Your task to perform on an android device: turn pop-ups off in chrome Image 0: 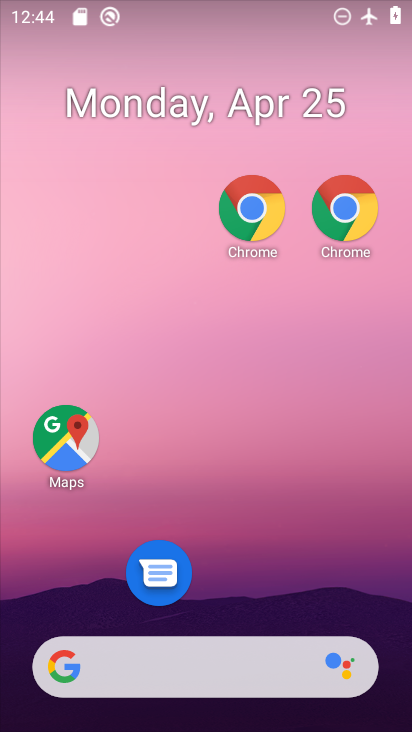
Step 0: drag from (251, 720) to (227, 279)
Your task to perform on an android device: turn pop-ups off in chrome Image 1: 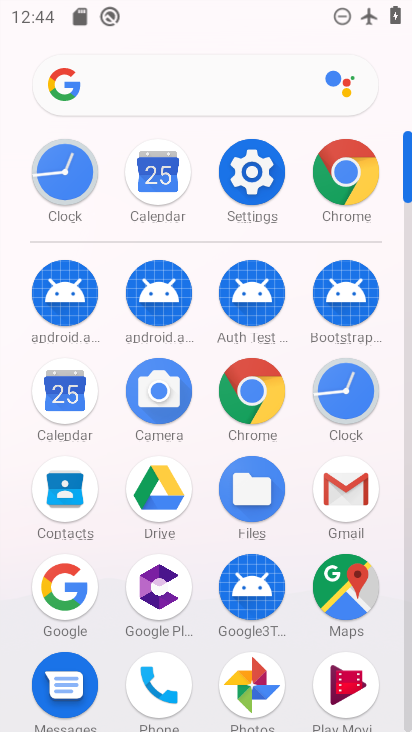
Step 1: click (249, 380)
Your task to perform on an android device: turn pop-ups off in chrome Image 2: 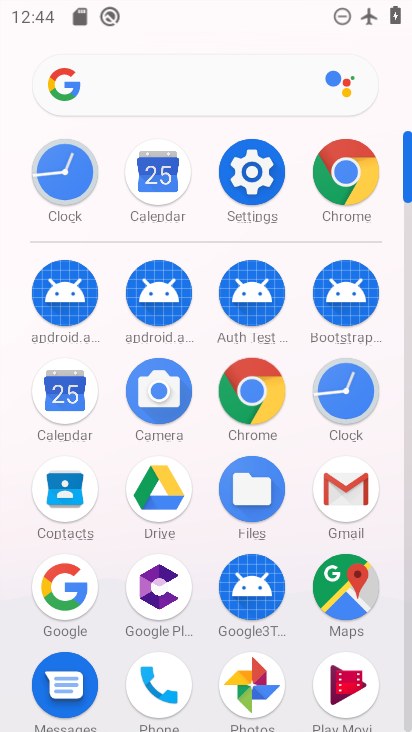
Step 2: click (249, 380)
Your task to perform on an android device: turn pop-ups off in chrome Image 3: 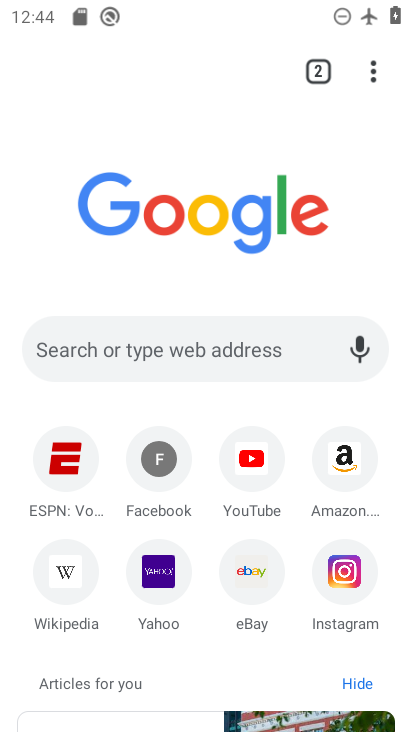
Step 3: drag from (370, 74) to (110, 606)
Your task to perform on an android device: turn pop-ups off in chrome Image 4: 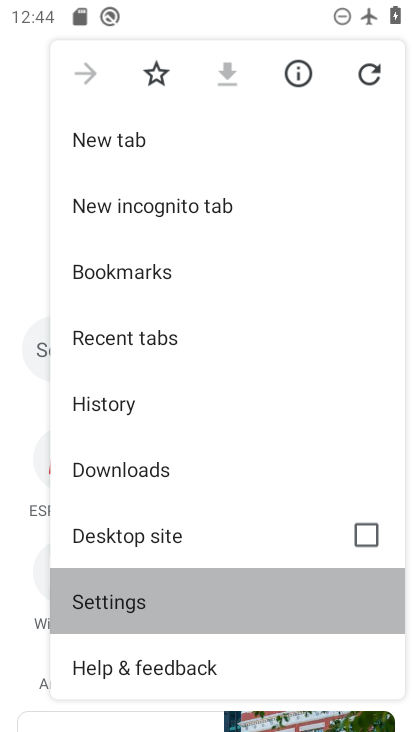
Step 4: click (110, 606)
Your task to perform on an android device: turn pop-ups off in chrome Image 5: 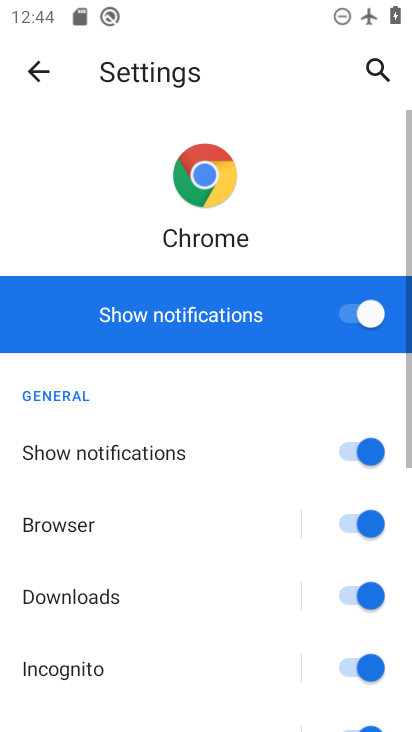
Step 5: drag from (167, 562) to (192, 235)
Your task to perform on an android device: turn pop-ups off in chrome Image 6: 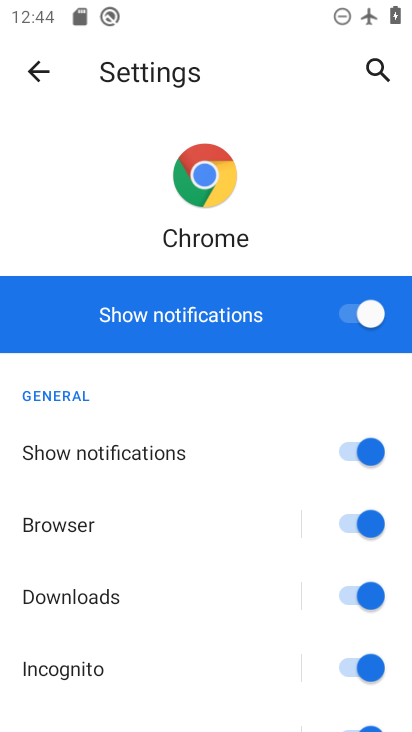
Step 6: click (33, 67)
Your task to perform on an android device: turn pop-ups off in chrome Image 7: 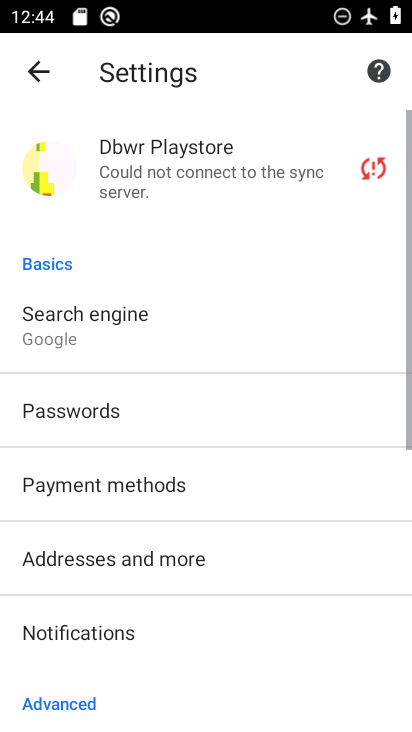
Step 7: drag from (178, 524) to (232, 145)
Your task to perform on an android device: turn pop-ups off in chrome Image 8: 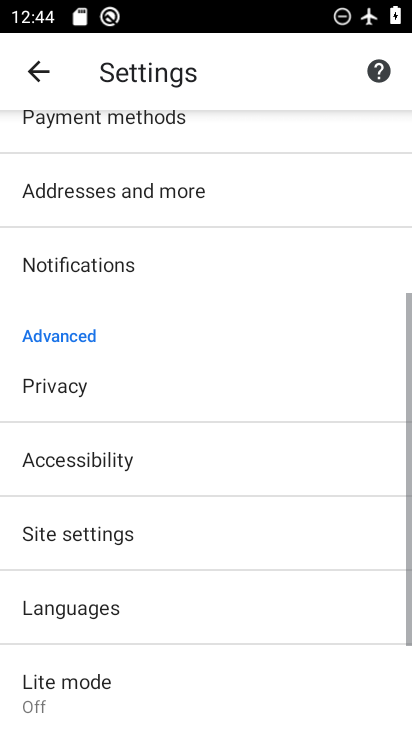
Step 8: drag from (215, 550) to (187, 153)
Your task to perform on an android device: turn pop-ups off in chrome Image 9: 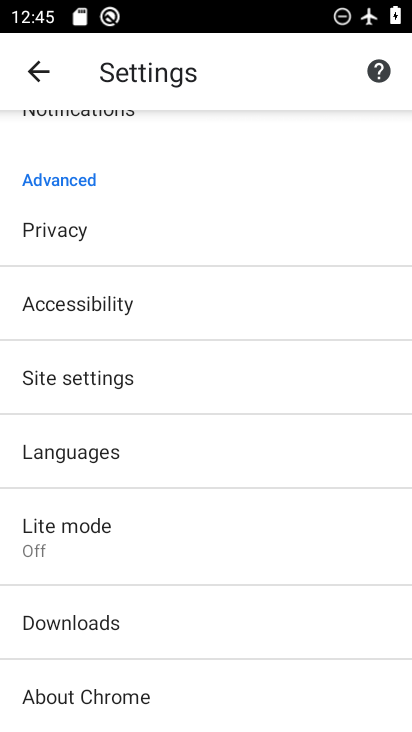
Step 9: click (64, 378)
Your task to perform on an android device: turn pop-ups off in chrome Image 10: 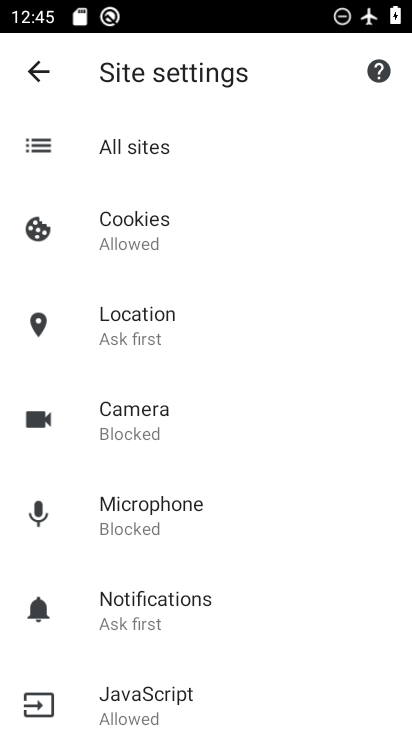
Step 10: drag from (214, 557) to (228, 160)
Your task to perform on an android device: turn pop-ups off in chrome Image 11: 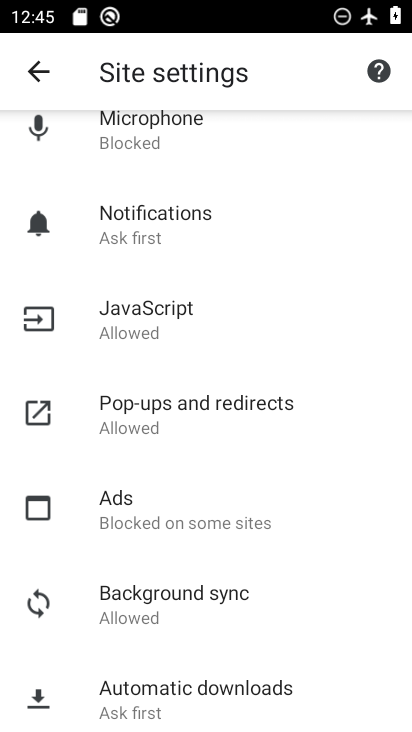
Step 11: click (185, 395)
Your task to perform on an android device: turn pop-ups off in chrome Image 12: 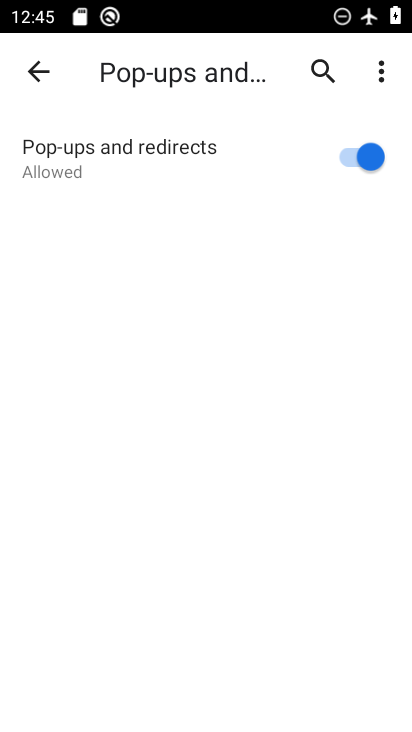
Step 12: click (362, 157)
Your task to perform on an android device: turn pop-ups off in chrome Image 13: 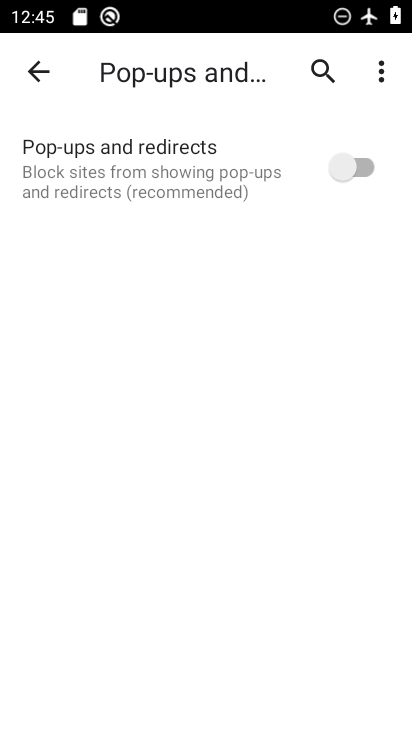
Step 13: task complete